Your task to perform on an android device: move an email to a new category in the gmail app Image 0: 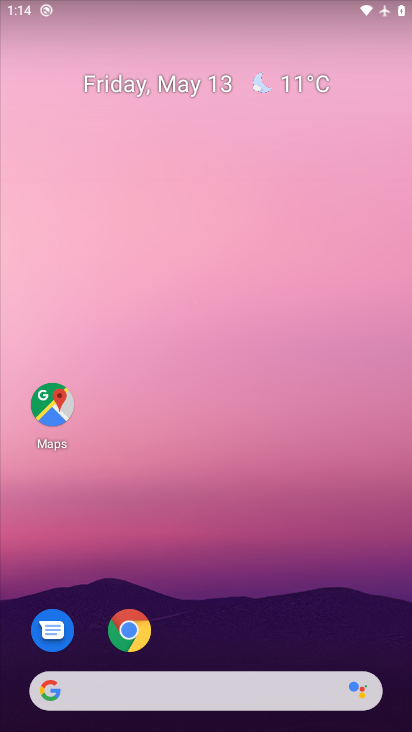
Step 0: drag from (276, 600) to (298, 248)
Your task to perform on an android device: move an email to a new category in the gmail app Image 1: 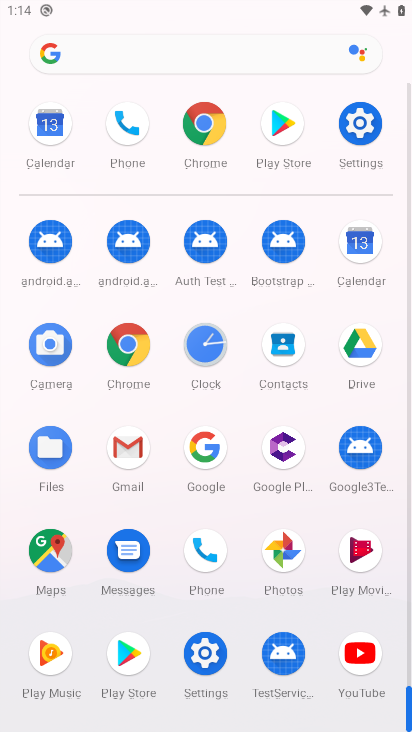
Step 1: click (129, 454)
Your task to perform on an android device: move an email to a new category in the gmail app Image 2: 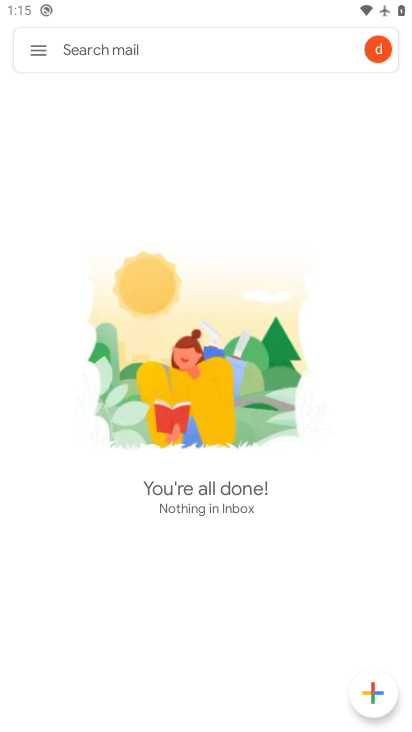
Step 2: click (22, 58)
Your task to perform on an android device: move an email to a new category in the gmail app Image 3: 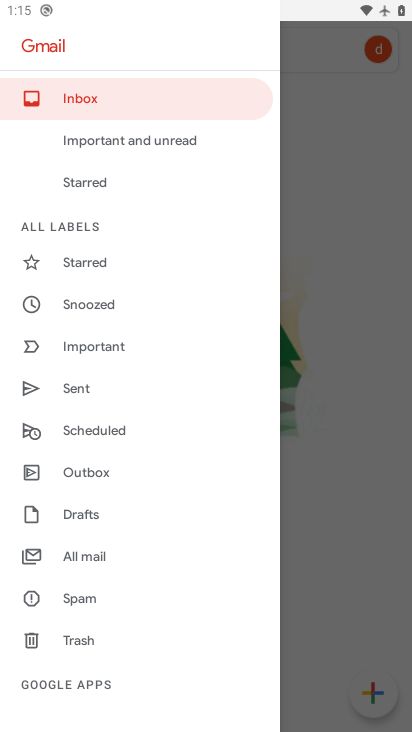
Step 3: click (99, 563)
Your task to perform on an android device: move an email to a new category in the gmail app Image 4: 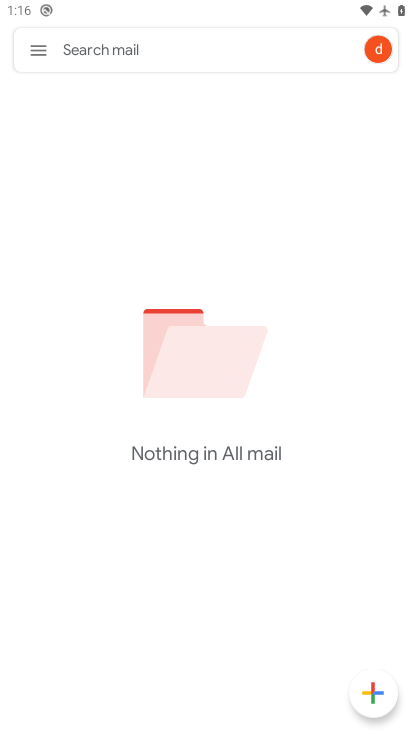
Step 4: task complete